Your task to perform on an android device: Open Google Maps Image 0: 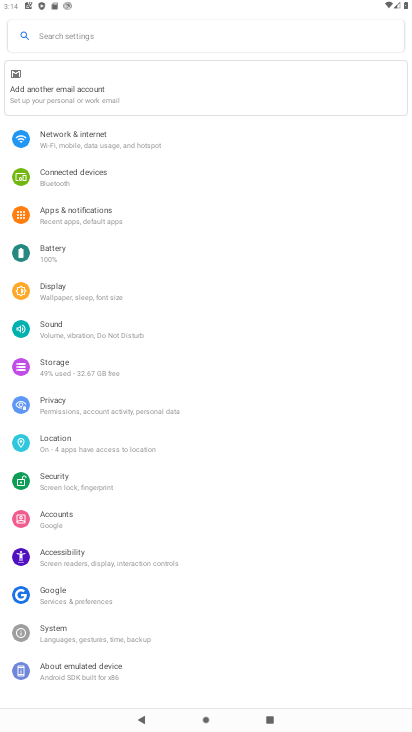
Step 0: press home button
Your task to perform on an android device: Open Google Maps Image 1: 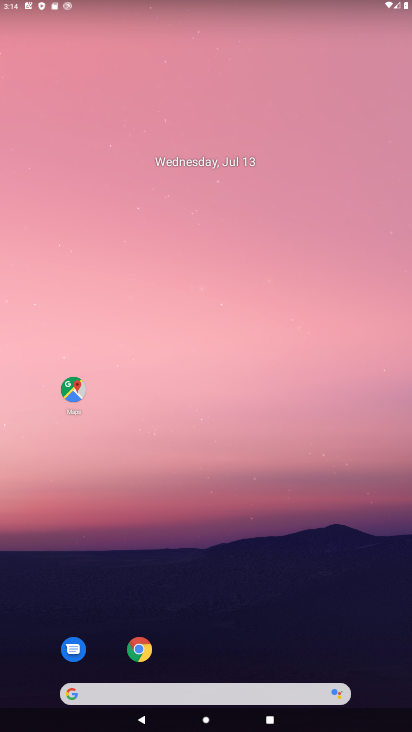
Step 1: drag from (201, 661) to (317, 175)
Your task to perform on an android device: Open Google Maps Image 2: 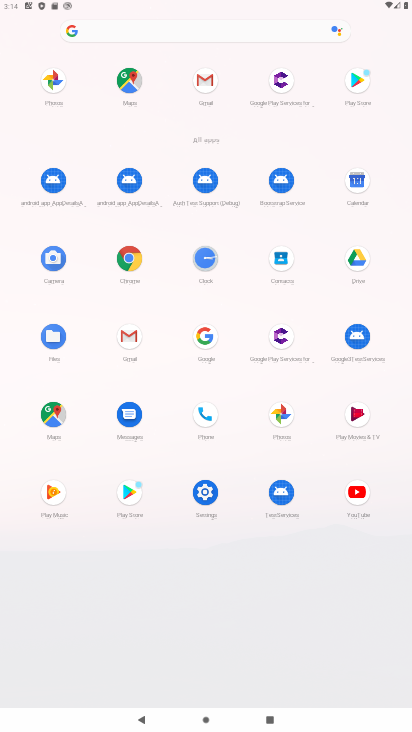
Step 2: click (47, 413)
Your task to perform on an android device: Open Google Maps Image 3: 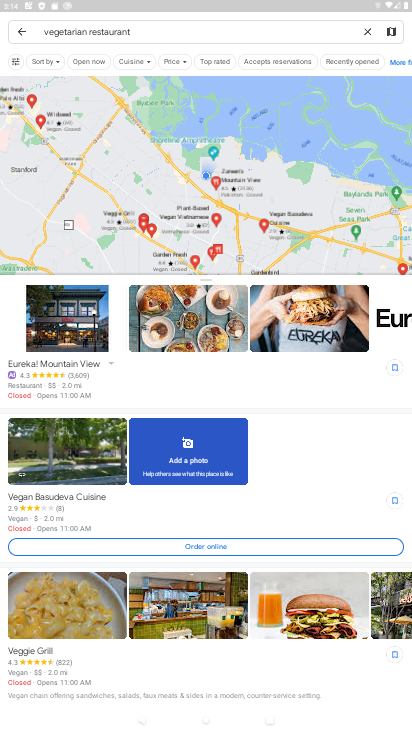
Step 3: task complete